Your task to perform on an android device: turn on showing notifications on the lock screen Image 0: 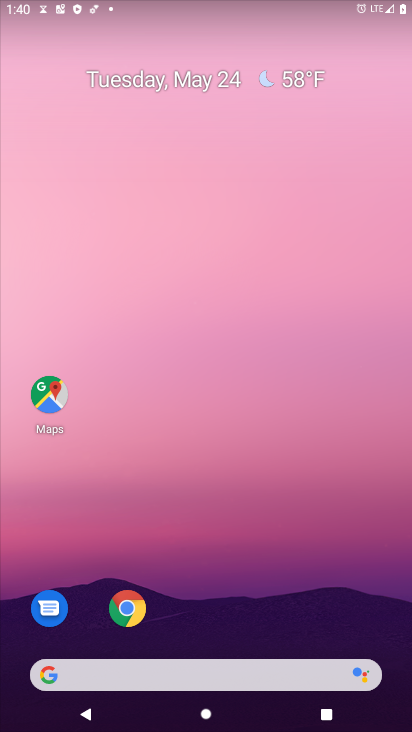
Step 0: drag from (257, 687) to (151, 181)
Your task to perform on an android device: turn on showing notifications on the lock screen Image 1: 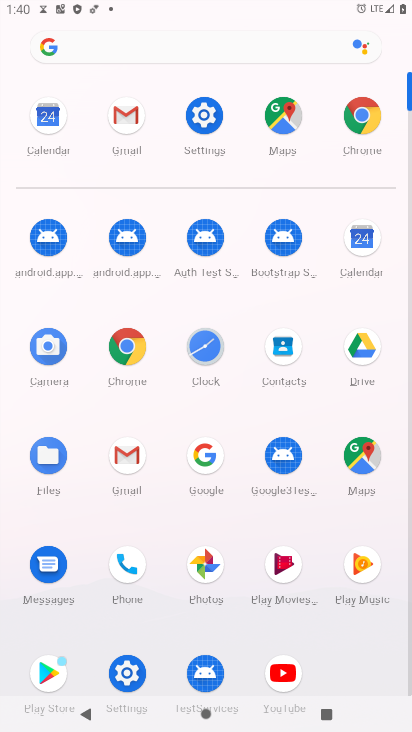
Step 1: click (207, 122)
Your task to perform on an android device: turn on showing notifications on the lock screen Image 2: 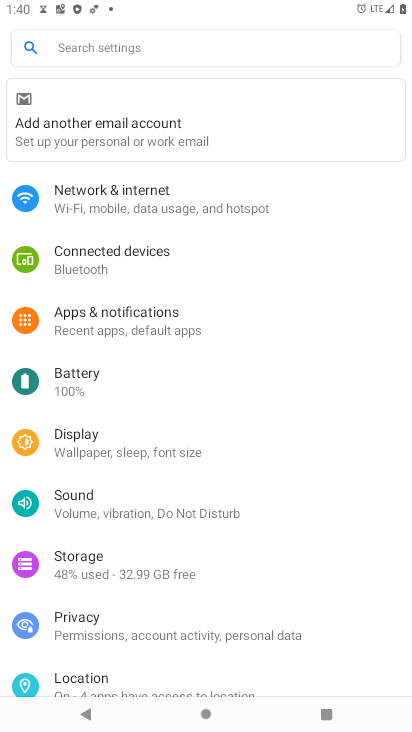
Step 2: click (156, 56)
Your task to perform on an android device: turn on showing notifications on the lock screen Image 3: 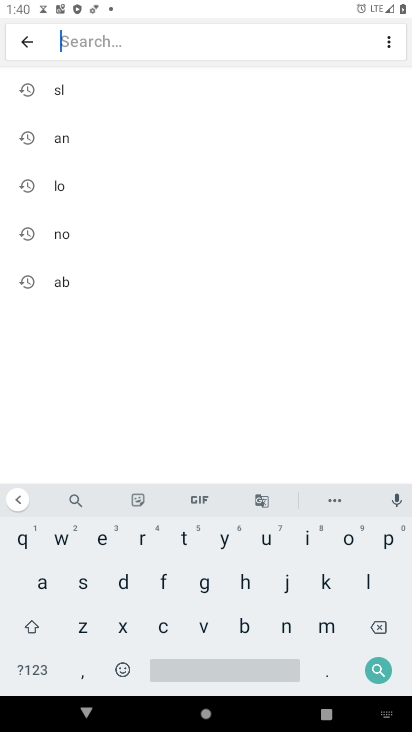
Step 3: click (90, 236)
Your task to perform on an android device: turn on showing notifications on the lock screen Image 4: 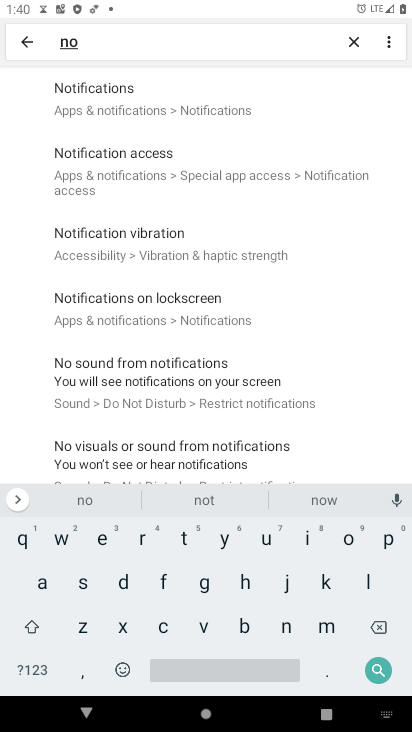
Step 4: click (134, 102)
Your task to perform on an android device: turn on showing notifications on the lock screen Image 5: 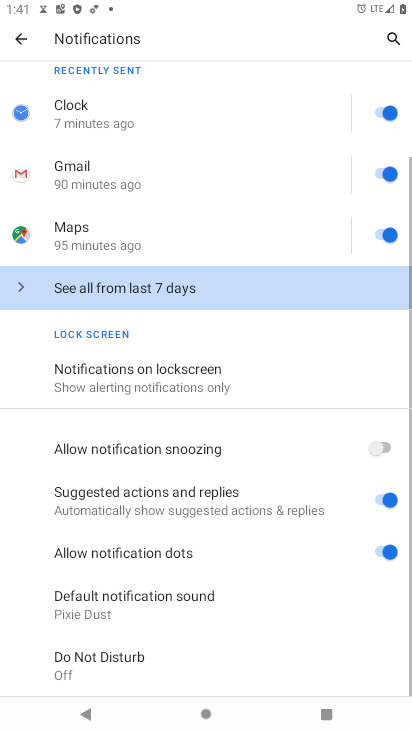
Step 5: click (141, 353)
Your task to perform on an android device: turn on showing notifications on the lock screen Image 6: 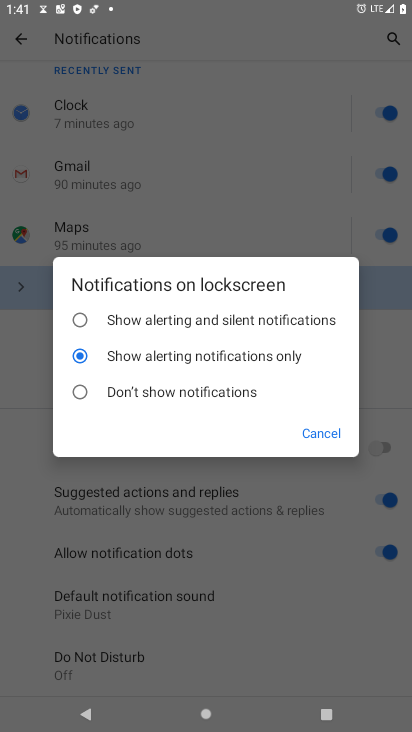
Step 6: click (192, 313)
Your task to perform on an android device: turn on showing notifications on the lock screen Image 7: 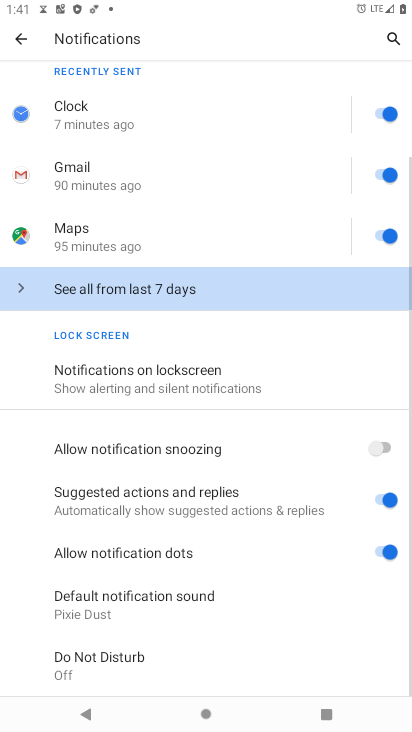
Step 7: task complete